Your task to perform on an android device: Open Google Chrome Image 0: 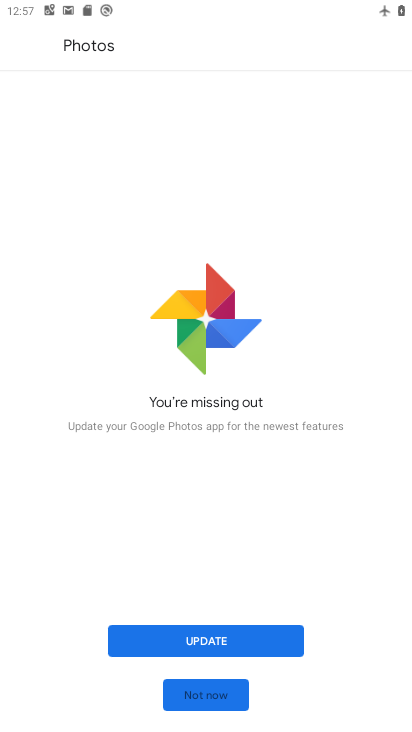
Step 0: press home button
Your task to perform on an android device: Open Google Chrome Image 1: 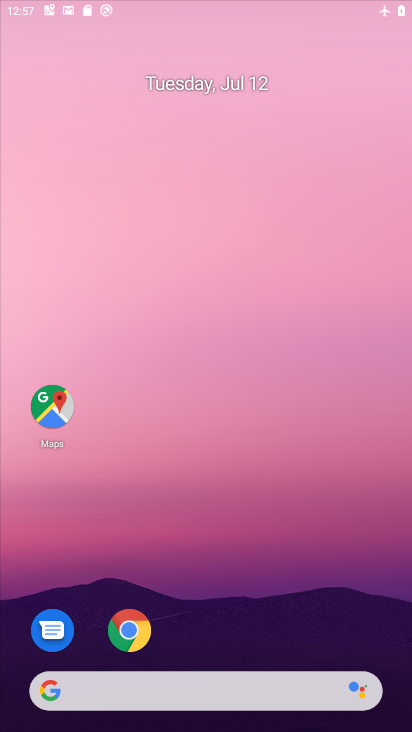
Step 1: drag from (219, 638) to (238, 211)
Your task to perform on an android device: Open Google Chrome Image 2: 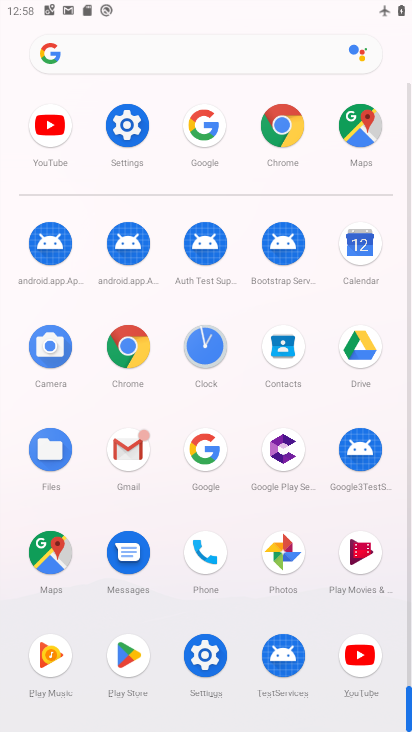
Step 2: click (128, 365)
Your task to perform on an android device: Open Google Chrome Image 3: 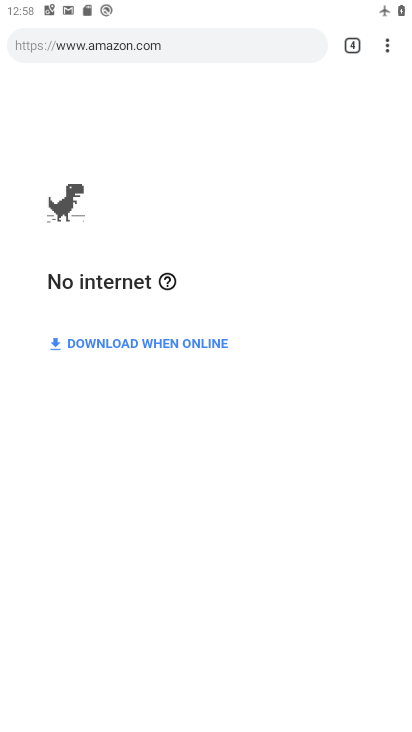
Step 3: task complete